Your task to perform on an android device: turn off priority inbox in the gmail app Image 0: 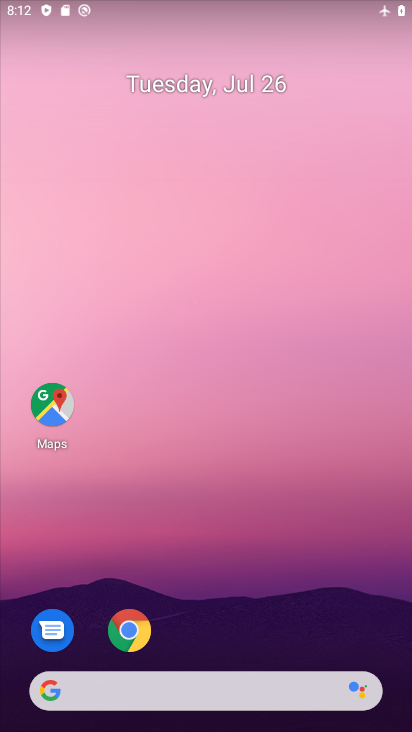
Step 0: drag from (313, 614) to (111, 78)
Your task to perform on an android device: turn off priority inbox in the gmail app Image 1: 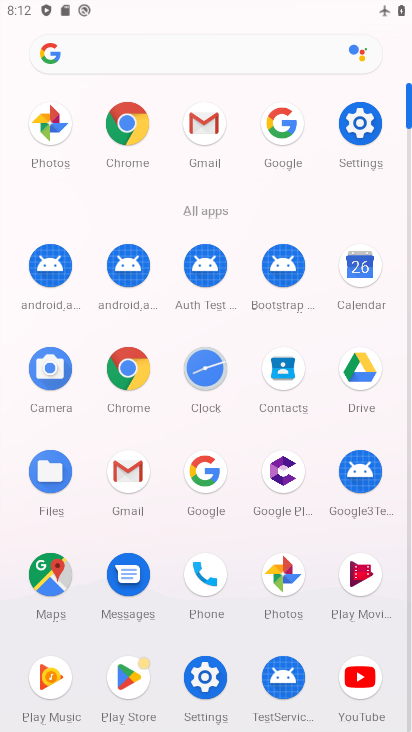
Step 1: click (361, 143)
Your task to perform on an android device: turn off priority inbox in the gmail app Image 2: 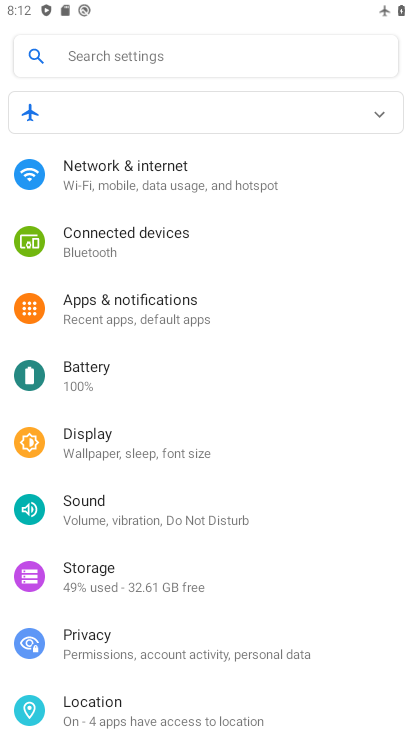
Step 2: drag from (180, 475) to (132, 209)
Your task to perform on an android device: turn off priority inbox in the gmail app Image 3: 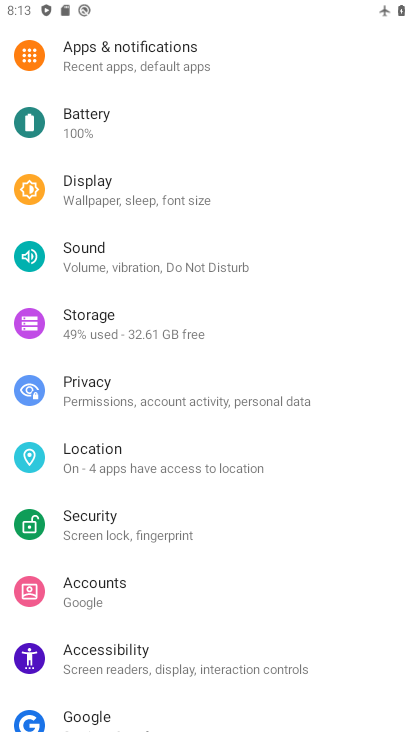
Step 3: press home button
Your task to perform on an android device: turn off priority inbox in the gmail app Image 4: 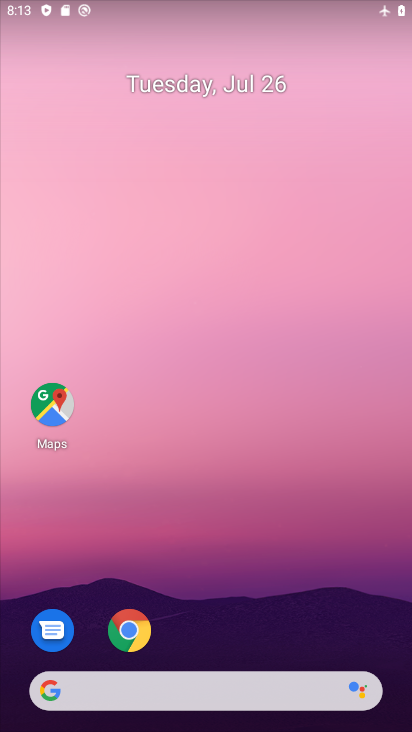
Step 4: drag from (274, 587) to (283, 213)
Your task to perform on an android device: turn off priority inbox in the gmail app Image 5: 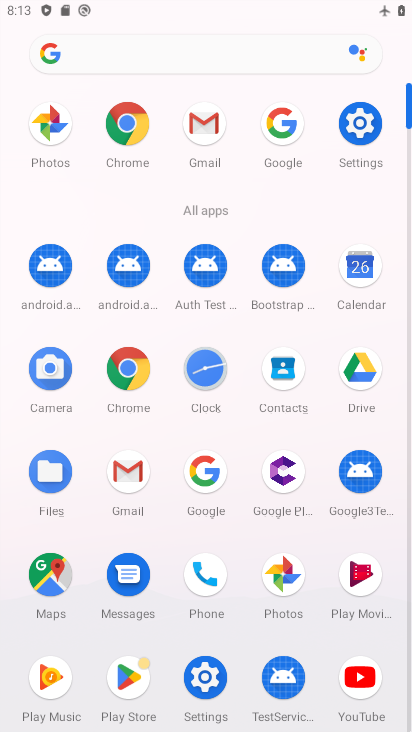
Step 5: click (192, 124)
Your task to perform on an android device: turn off priority inbox in the gmail app Image 6: 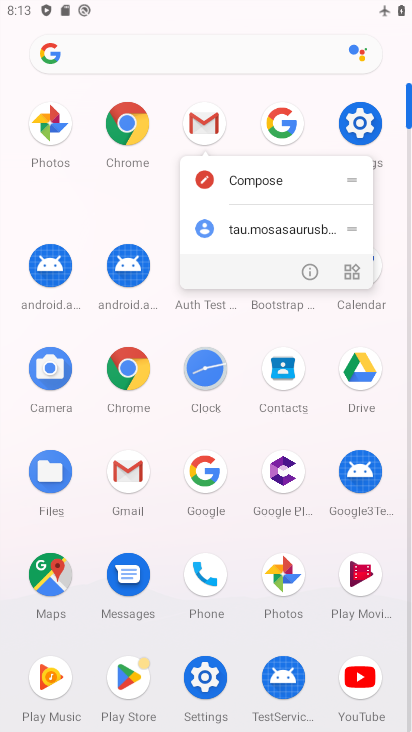
Step 6: click (191, 128)
Your task to perform on an android device: turn off priority inbox in the gmail app Image 7: 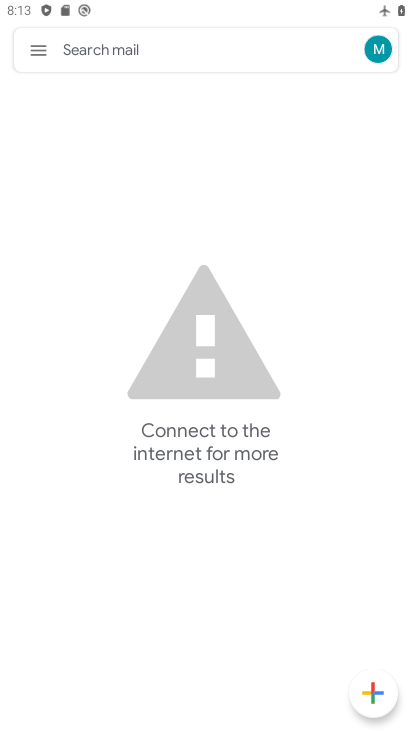
Step 7: click (34, 44)
Your task to perform on an android device: turn off priority inbox in the gmail app Image 8: 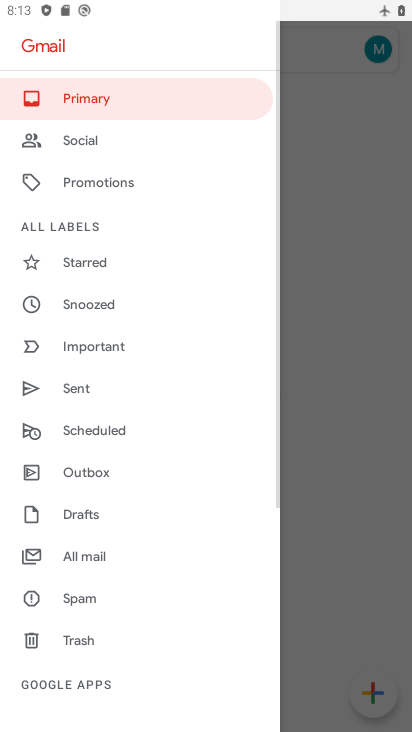
Step 8: drag from (172, 629) to (142, 249)
Your task to perform on an android device: turn off priority inbox in the gmail app Image 9: 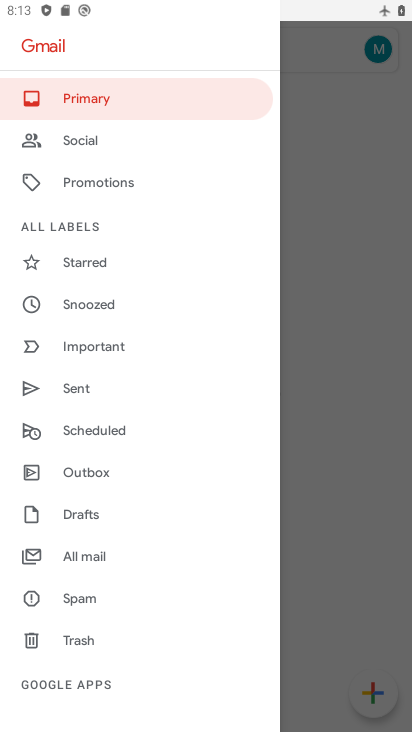
Step 9: drag from (191, 632) to (306, 413)
Your task to perform on an android device: turn off priority inbox in the gmail app Image 10: 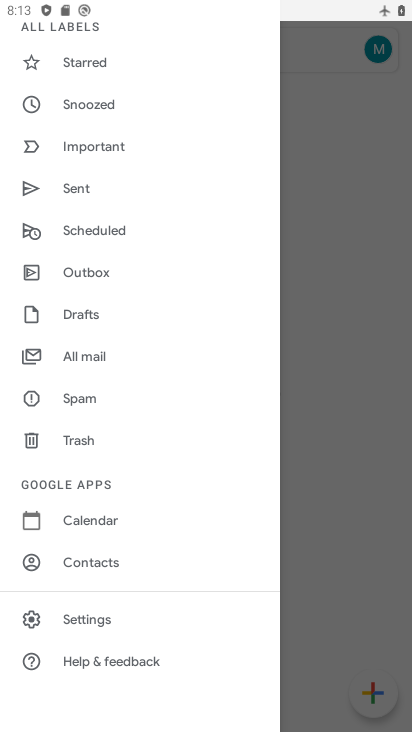
Step 10: click (101, 615)
Your task to perform on an android device: turn off priority inbox in the gmail app Image 11: 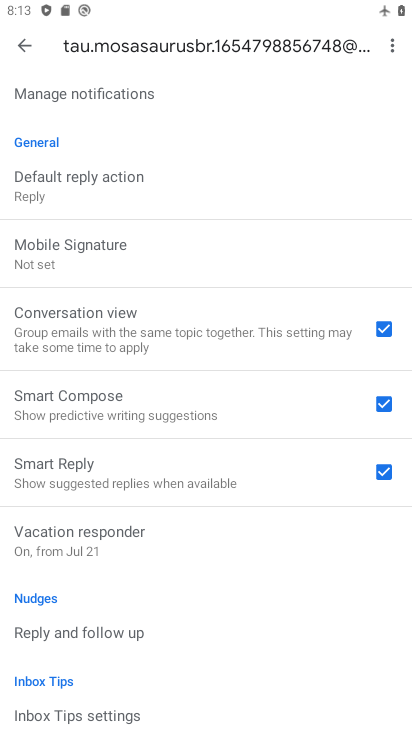
Step 11: drag from (72, 279) to (202, 605)
Your task to perform on an android device: turn off priority inbox in the gmail app Image 12: 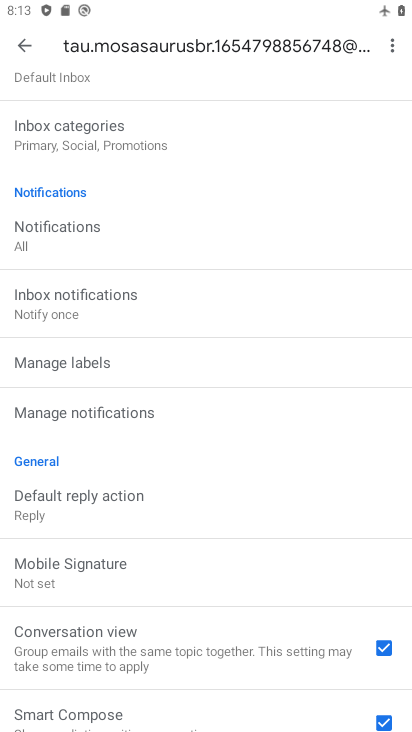
Step 12: drag from (126, 129) to (309, 559)
Your task to perform on an android device: turn off priority inbox in the gmail app Image 13: 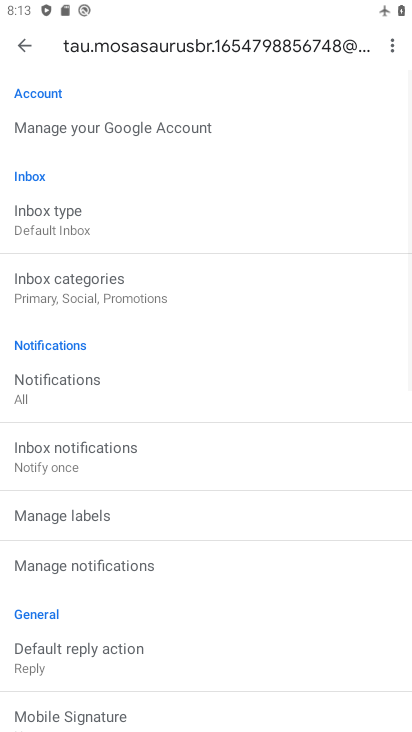
Step 13: click (73, 213)
Your task to perform on an android device: turn off priority inbox in the gmail app Image 14: 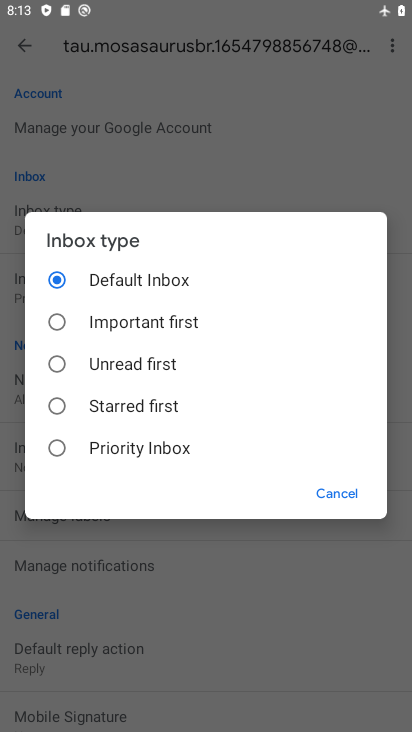
Step 14: task complete